Your task to perform on an android device: toggle data saver in the chrome app Image 0: 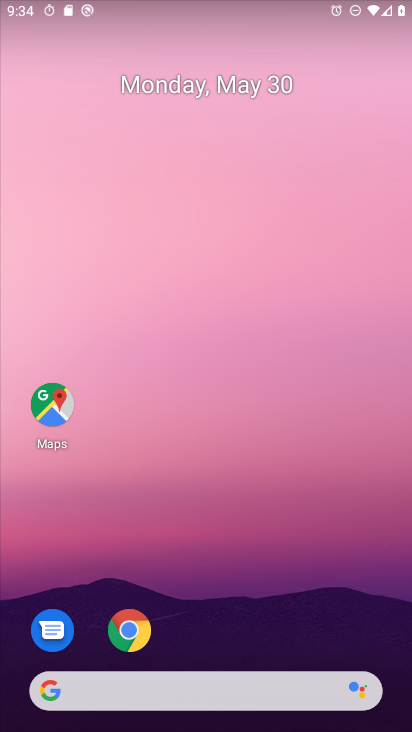
Step 0: drag from (354, 614) to (264, 51)
Your task to perform on an android device: toggle data saver in the chrome app Image 1: 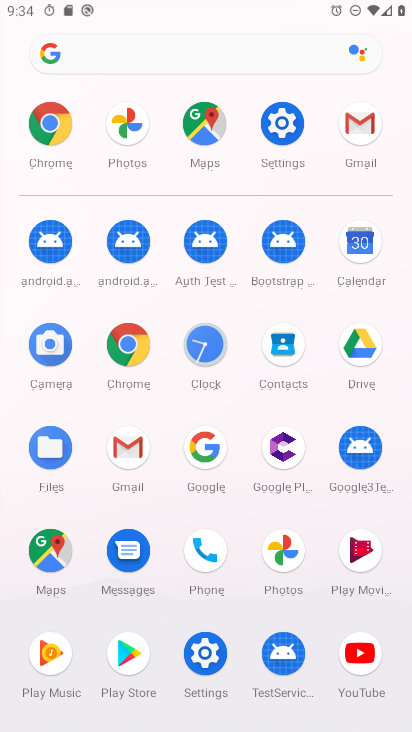
Step 1: click (62, 122)
Your task to perform on an android device: toggle data saver in the chrome app Image 2: 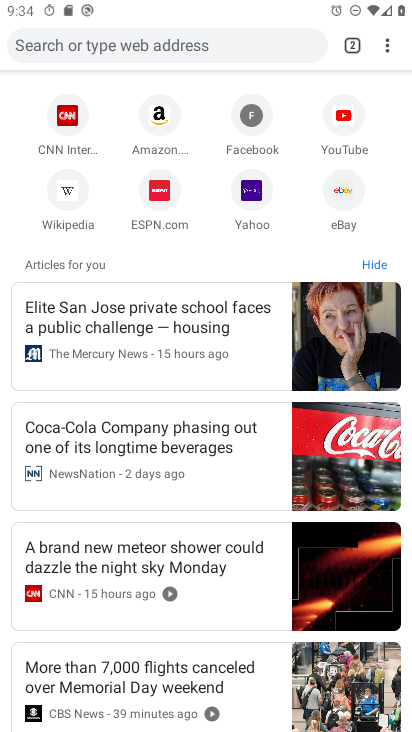
Step 2: click (389, 47)
Your task to perform on an android device: toggle data saver in the chrome app Image 3: 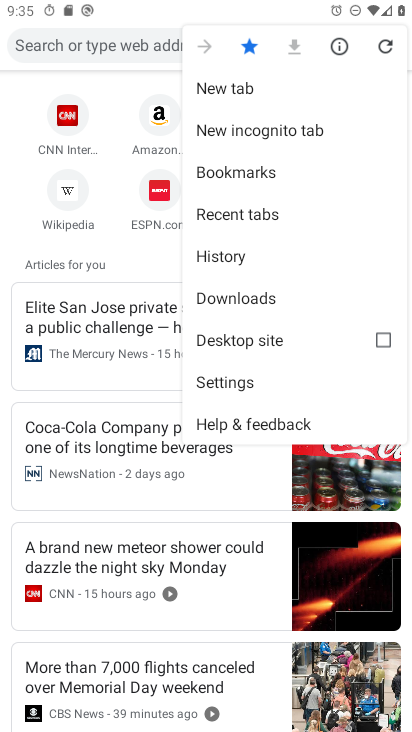
Step 3: click (232, 380)
Your task to perform on an android device: toggle data saver in the chrome app Image 4: 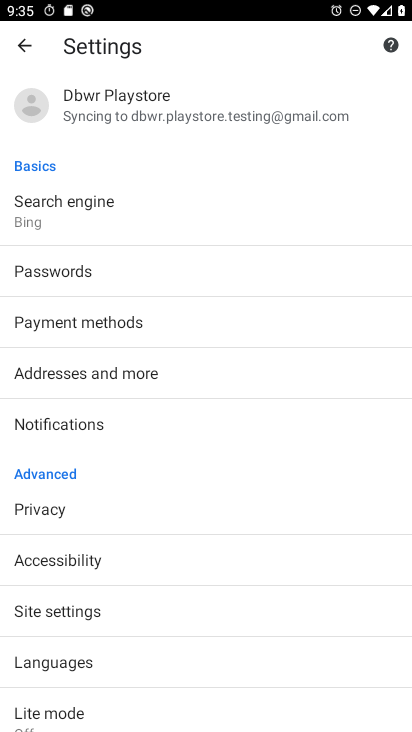
Step 4: click (126, 711)
Your task to perform on an android device: toggle data saver in the chrome app Image 5: 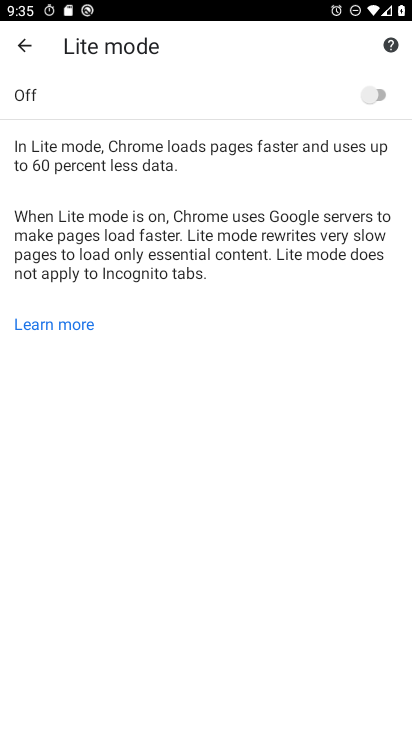
Step 5: click (373, 99)
Your task to perform on an android device: toggle data saver in the chrome app Image 6: 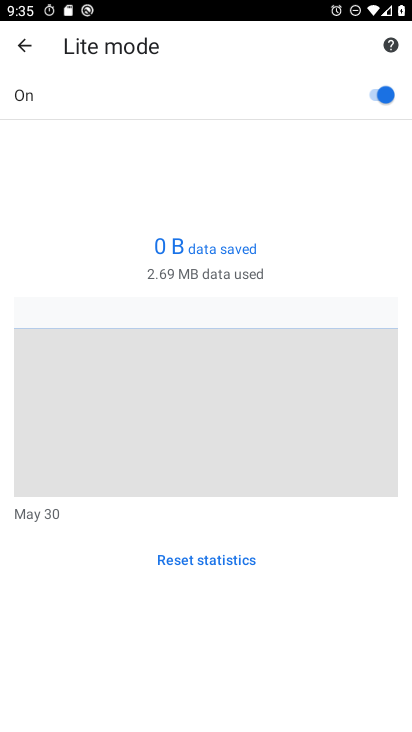
Step 6: task complete